Your task to perform on an android device: Open display settings Image 0: 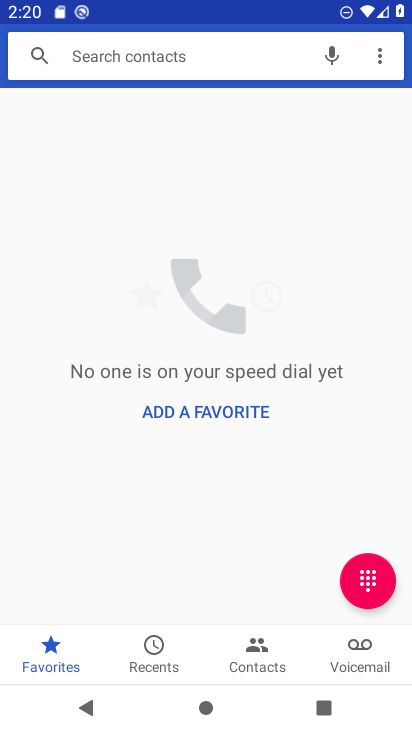
Step 0: press home button
Your task to perform on an android device: Open display settings Image 1: 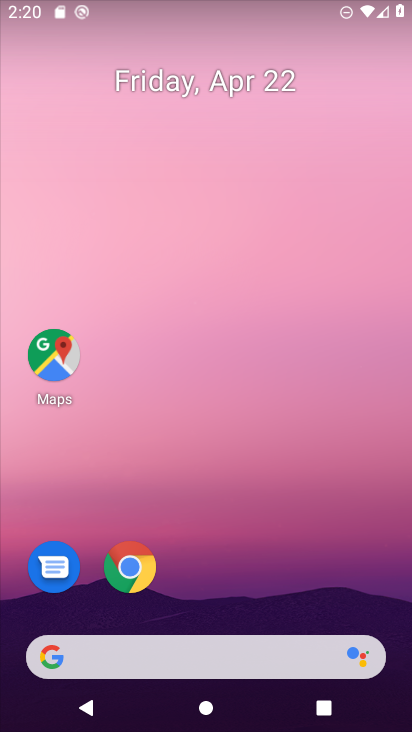
Step 1: drag from (277, 421) to (268, 63)
Your task to perform on an android device: Open display settings Image 2: 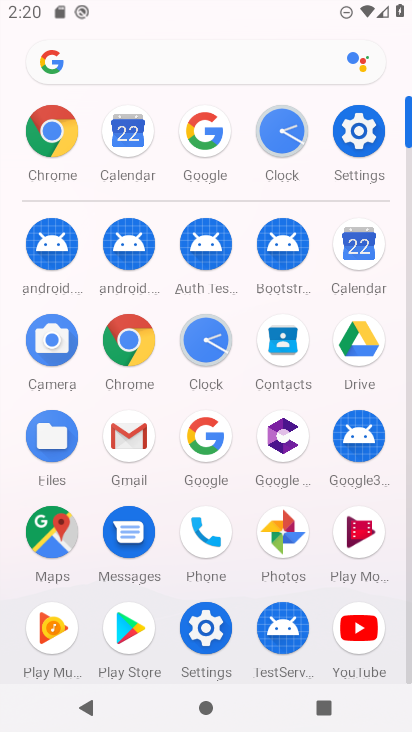
Step 2: click (201, 618)
Your task to perform on an android device: Open display settings Image 3: 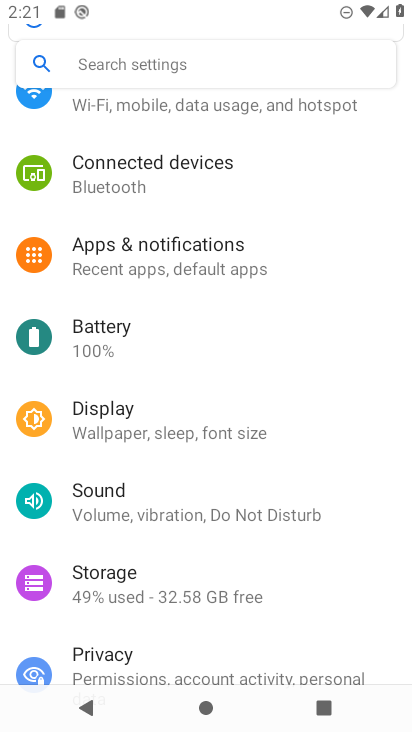
Step 3: click (221, 418)
Your task to perform on an android device: Open display settings Image 4: 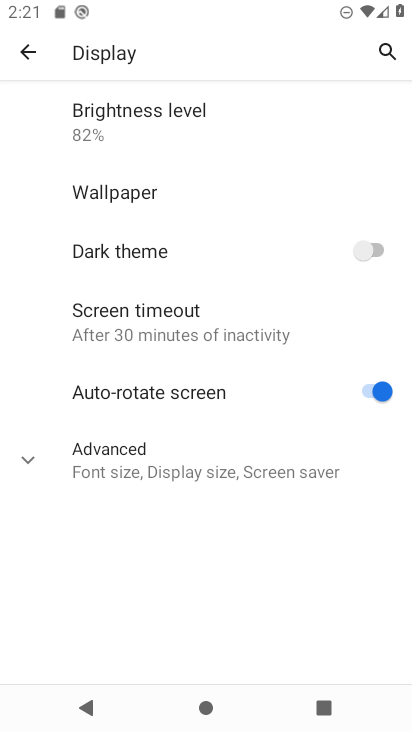
Step 4: task complete